Your task to perform on an android device: check google app version Image 0: 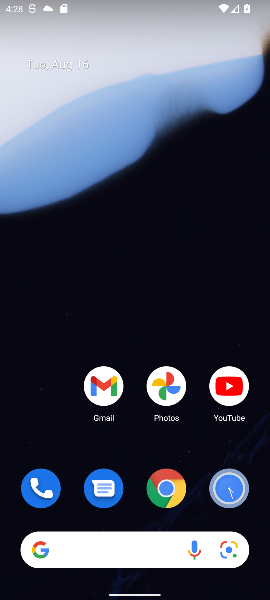
Step 0: drag from (48, 439) to (78, 273)
Your task to perform on an android device: check google app version Image 1: 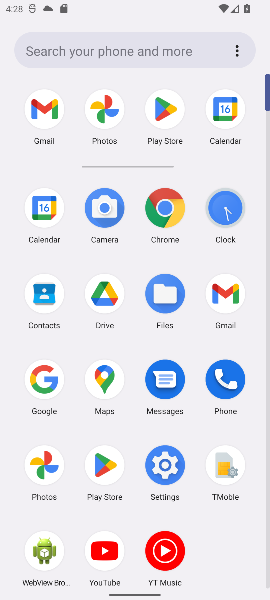
Step 1: click (41, 357)
Your task to perform on an android device: check google app version Image 2: 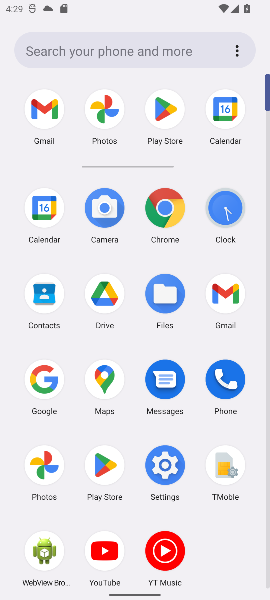
Step 2: click (48, 376)
Your task to perform on an android device: check google app version Image 3: 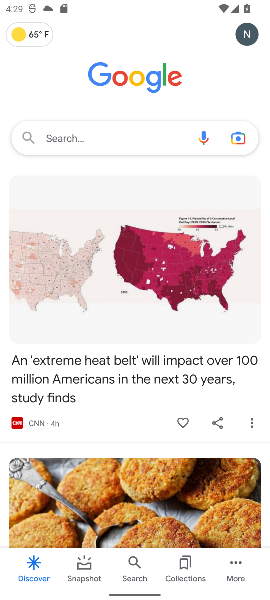
Step 3: task complete